Your task to perform on an android device: open app "Microsoft Outlook" (install if not already installed) and enter user name: "brand@gmail.com" and password: "persuasiveness" Image 0: 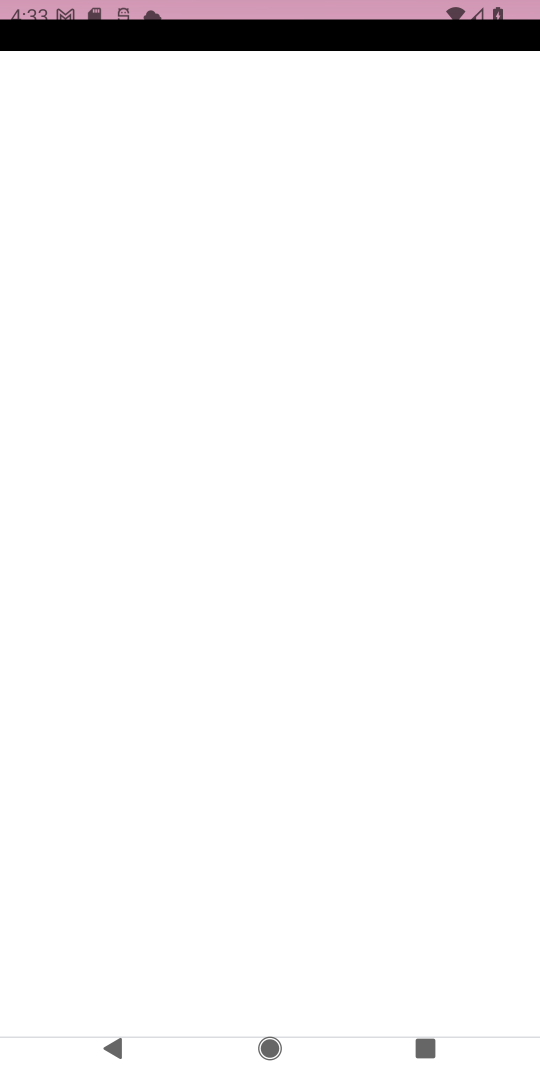
Step 0: press home button
Your task to perform on an android device: open app "Microsoft Outlook" (install if not already installed) and enter user name: "brand@gmail.com" and password: "persuasiveness" Image 1: 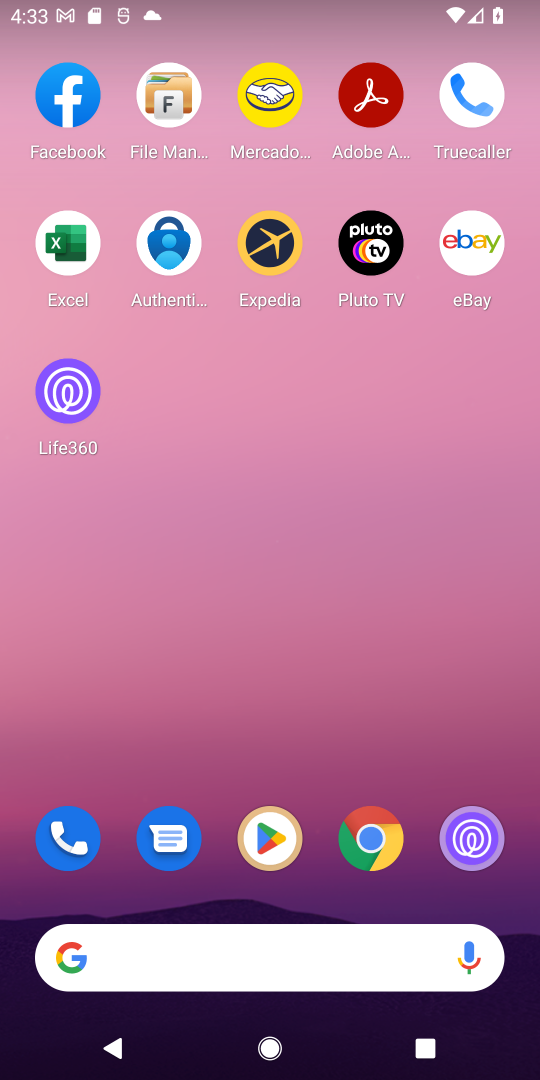
Step 1: click (268, 833)
Your task to perform on an android device: open app "Microsoft Outlook" (install if not already installed) and enter user name: "brand@gmail.com" and password: "persuasiveness" Image 2: 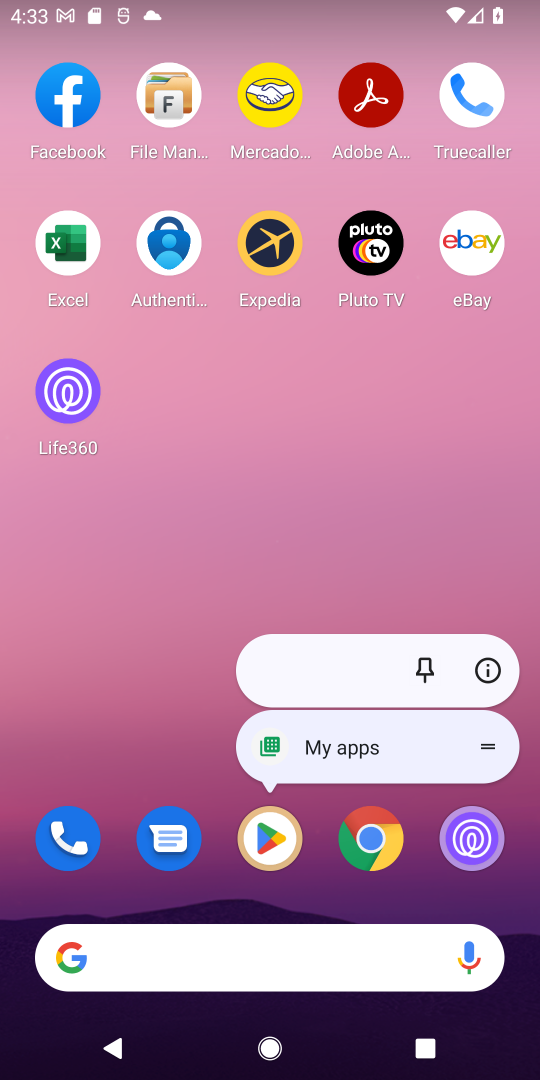
Step 2: click (256, 830)
Your task to perform on an android device: open app "Microsoft Outlook" (install if not already installed) and enter user name: "brand@gmail.com" and password: "persuasiveness" Image 3: 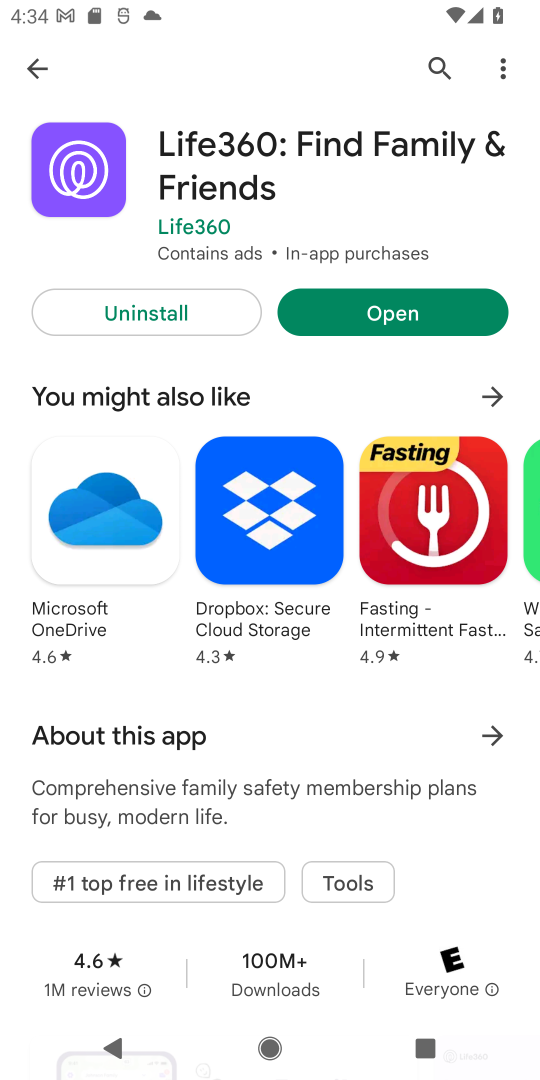
Step 3: type "Microsoft Outlook"
Your task to perform on an android device: open app "Microsoft Outlook" (install if not already installed) and enter user name: "brand@gmail.com" and password: "persuasiveness" Image 4: 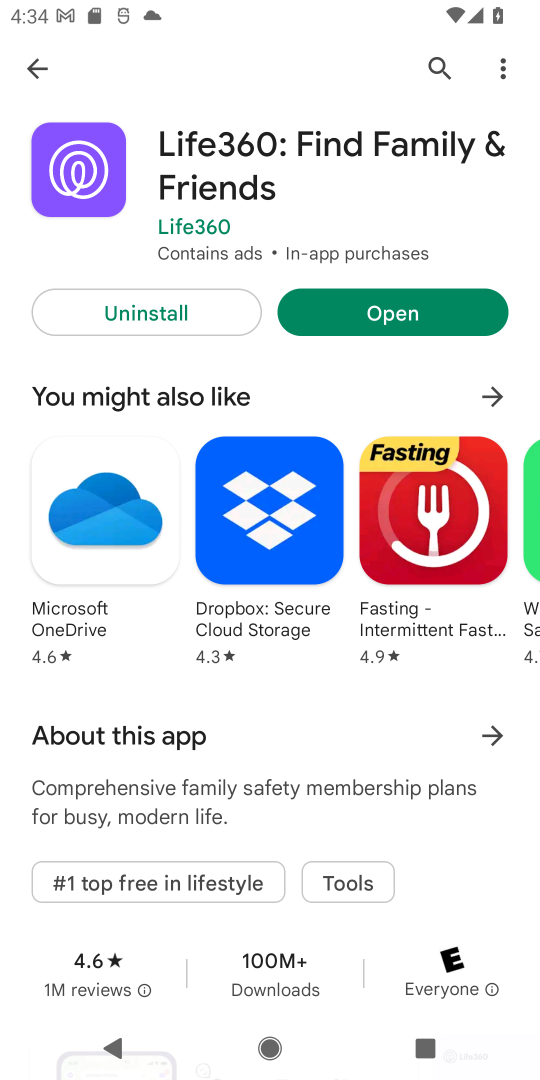
Step 4: click (428, 61)
Your task to perform on an android device: open app "Microsoft Outlook" (install if not already installed) and enter user name: "brand@gmail.com" and password: "persuasiveness" Image 5: 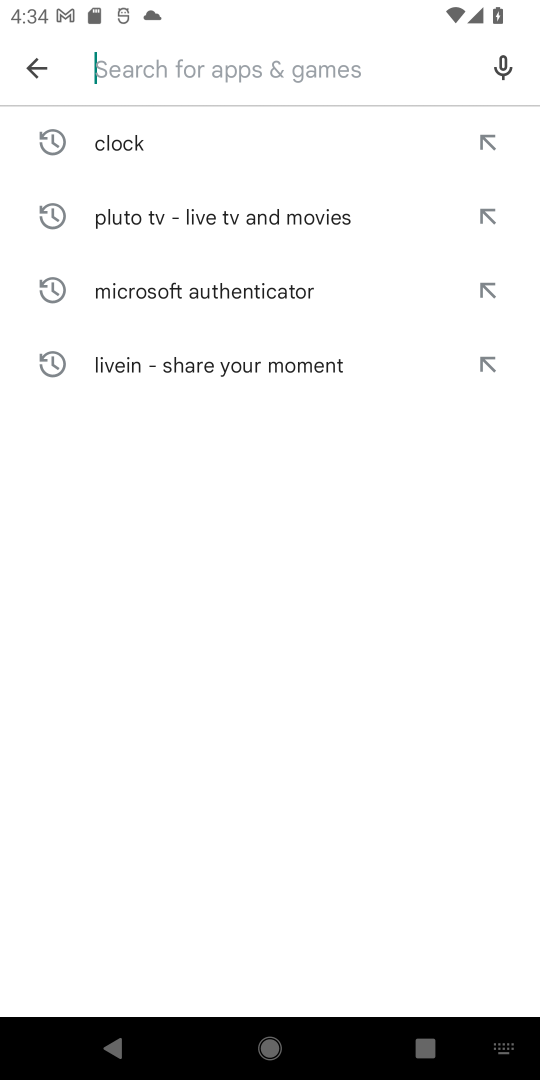
Step 5: type "Microsoft Outlook"
Your task to perform on an android device: open app "Microsoft Outlook" (install if not already installed) and enter user name: "brand@gmail.com" and password: "persuasiveness" Image 6: 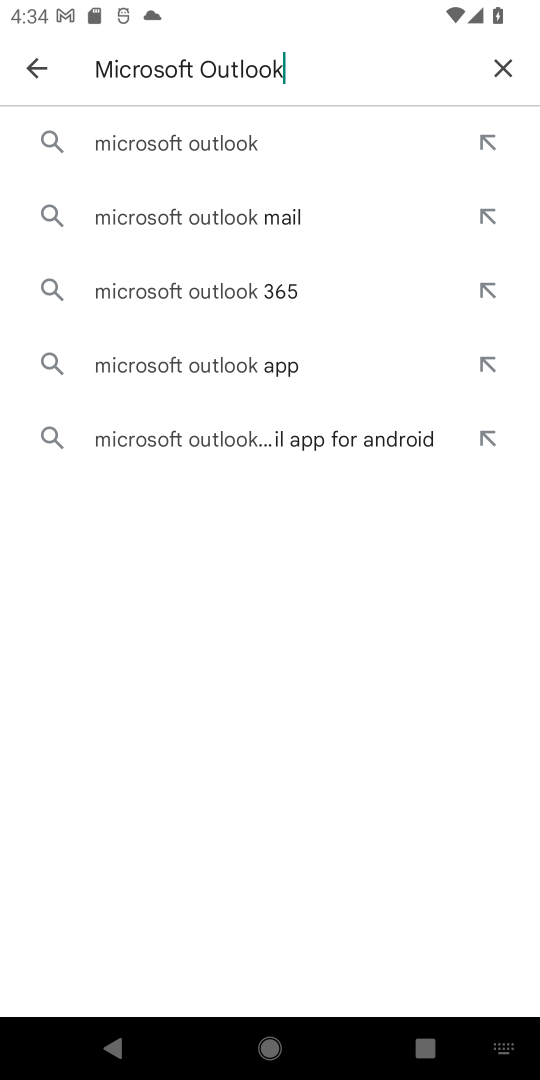
Step 6: click (289, 133)
Your task to perform on an android device: open app "Microsoft Outlook" (install if not already installed) and enter user name: "brand@gmail.com" and password: "persuasiveness" Image 7: 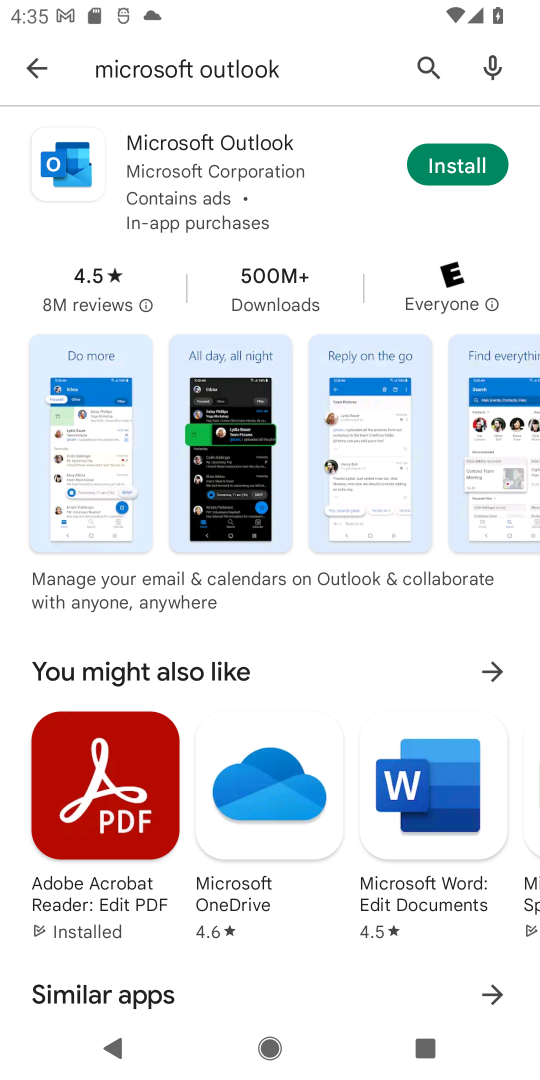
Step 7: click (460, 164)
Your task to perform on an android device: open app "Microsoft Outlook" (install if not already installed) and enter user name: "brand@gmail.com" and password: "persuasiveness" Image 8: 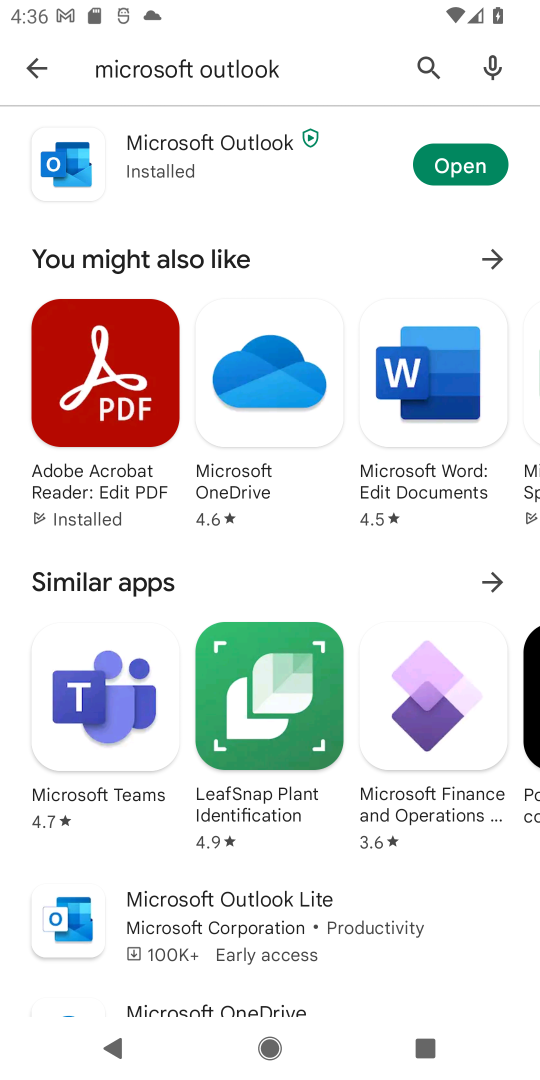
Step 8: click (459, 160)
Your task to perform on an android device: open app "Microsoft Outlook" (install if not already installed) and enter user name: "brand@gmail.com" and password: "persuasiveness" Image 9: 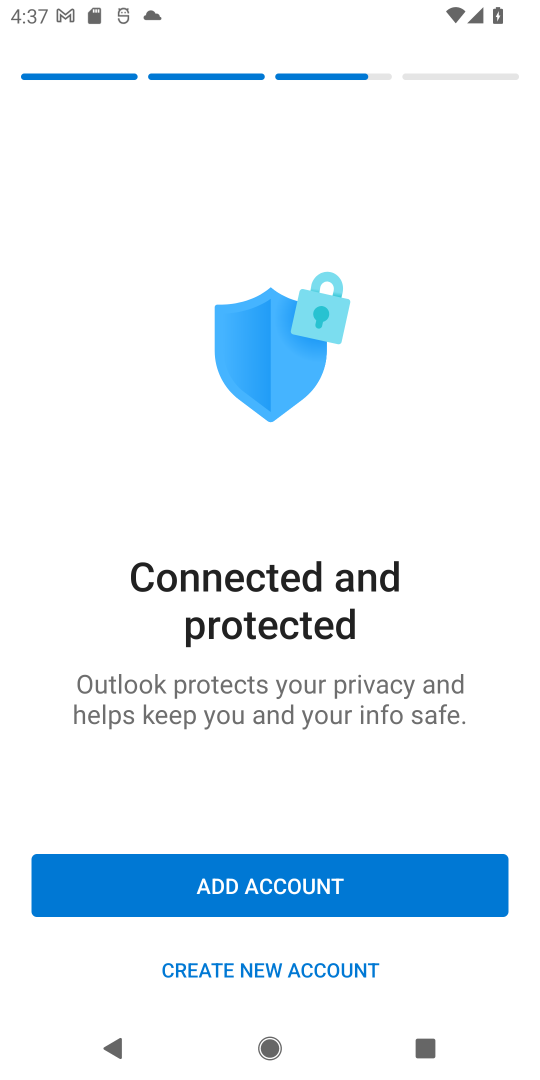
Step 9: task complete